Your task to perform on an android device: toggle data saver in the chrome app Image 0: 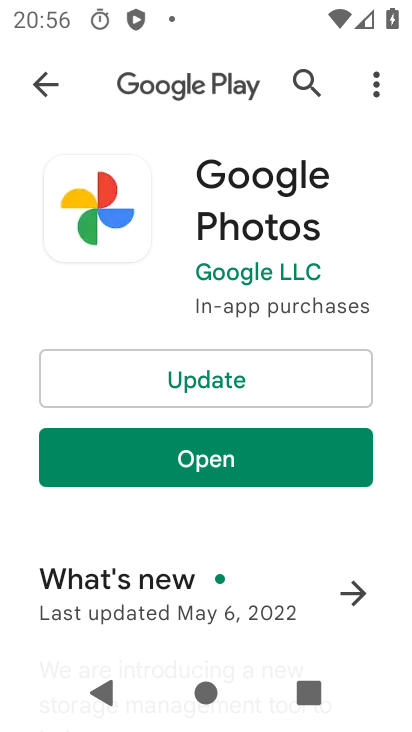
Step 0: drag from (362, 497) to (186, 76)
Your task to perform on an android device: toggle data saver in the chrome app Image 1: 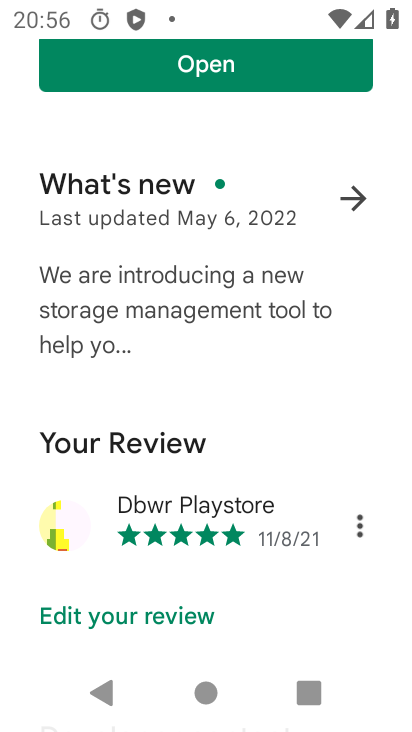
Step 1: press back button
Your task to perform on an android device: toggle data saver in the chrome app Image 2: 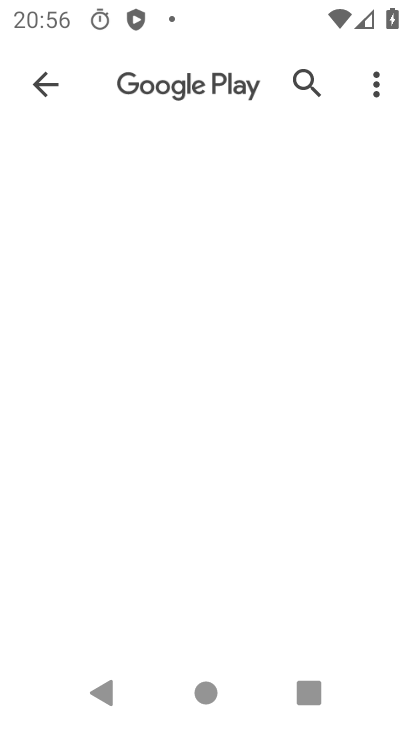
Step 2: press back button
Your task to perform on an android device: toggle data saver in the chrome app Image 3: 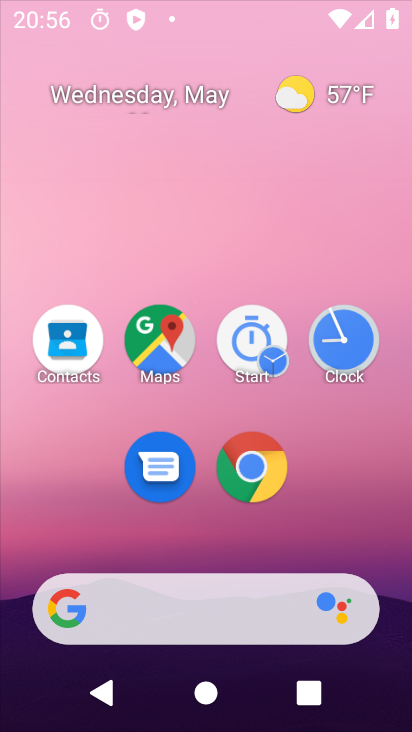
Step 3: press back button
Your task to perform on an android device: toggle data saver in the chrome app Image 4: 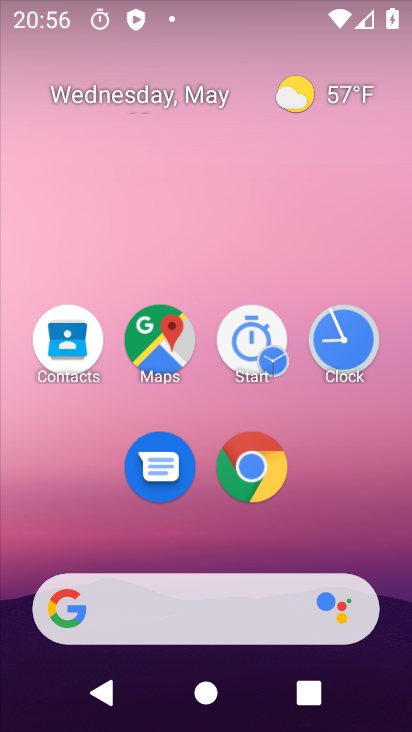
Step 4: drag from (354, 569) to (186, 126)
Your task to perform on an android device: toggle data saver in the chrome app Image 5: 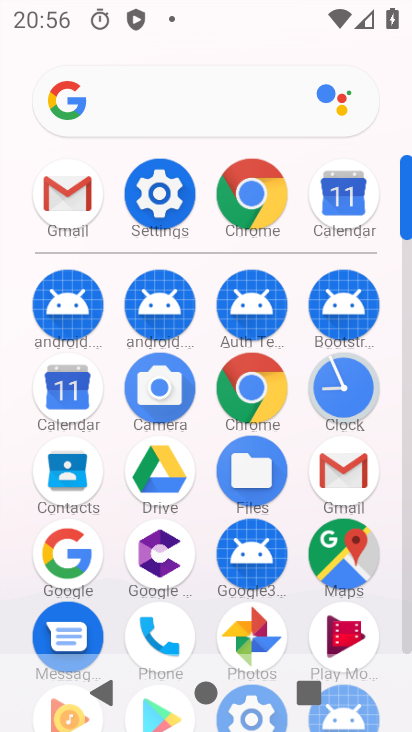
Step 5: click (229, 201)
Your task to perform on an android device: toggle data saver in the chrome app Image 6: 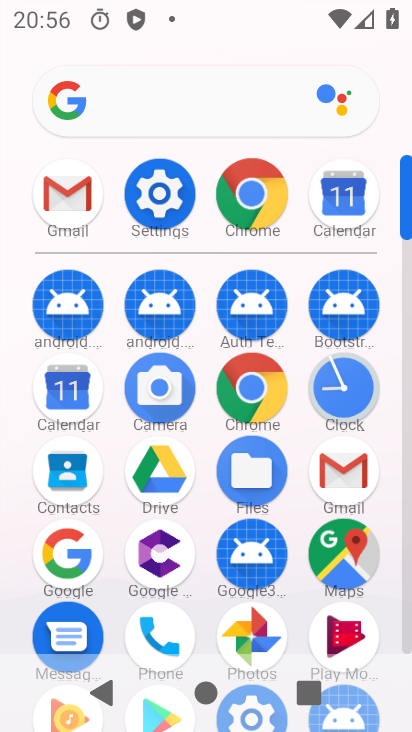
Step 6: click (231, 200)
Your task to perform on an android device: toggle data saver in the chrome app Image 7: 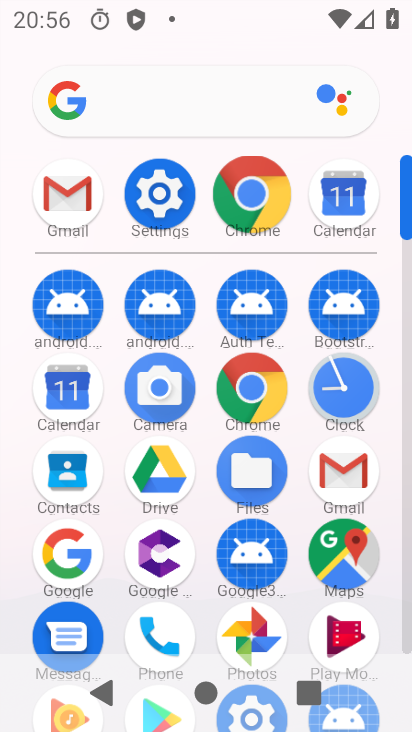
Step 7: click (233, 200)
Your task to perform on an android device: toggle data saver in the chrome app Image 8: 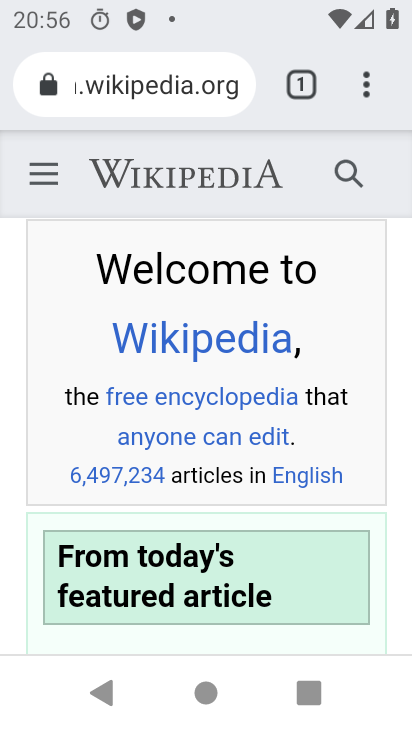
Step 8: drag from (362, 82) to (87, 510)
Your task to perform on an android device: toggle data saver in the chrome app Image 9: 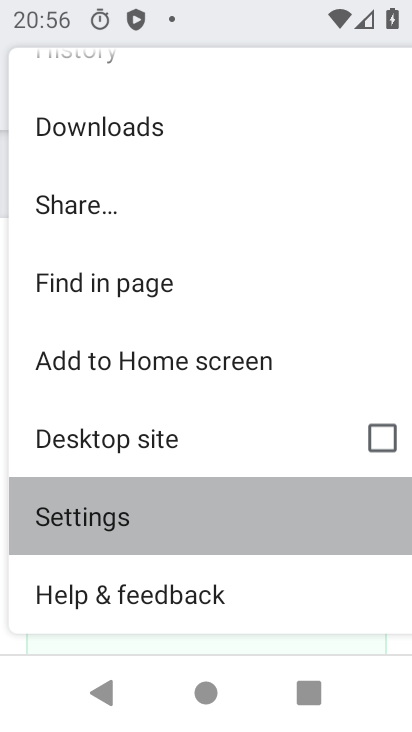
Step 9: click (86, 510)
Your task to perform on an android device: toggle data saver in the chrome app Image 10: 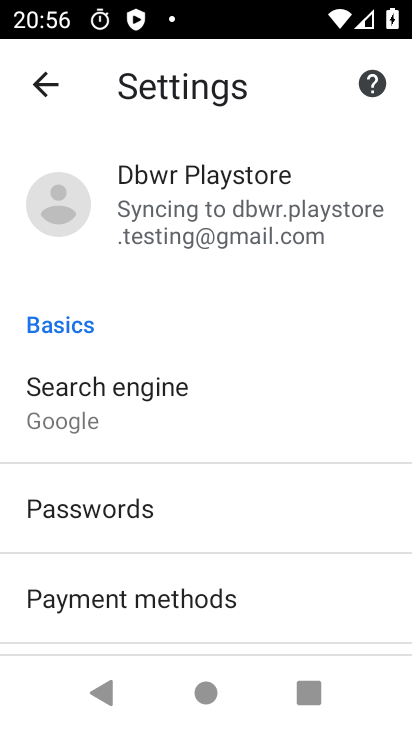
Step 10: drag from (179, 508) to (110, 121)
Your task to perform on an android device: toggle data saver in the chrome app Image 11: 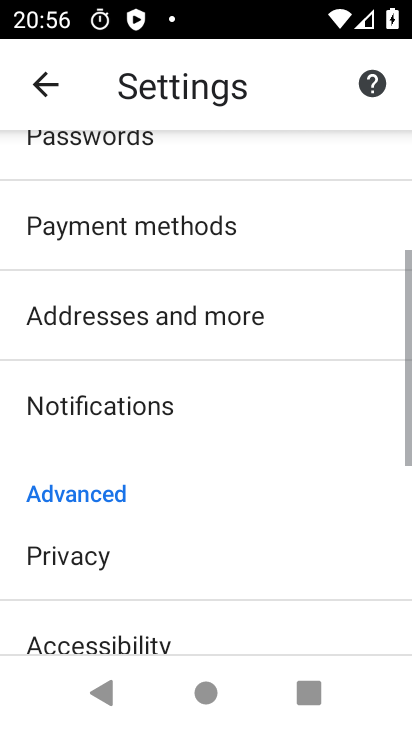
Step 11: drag from (209, 464) to (145, 98)
Your task to perform on an android device: toggle data saver in the chrome app Image 12: 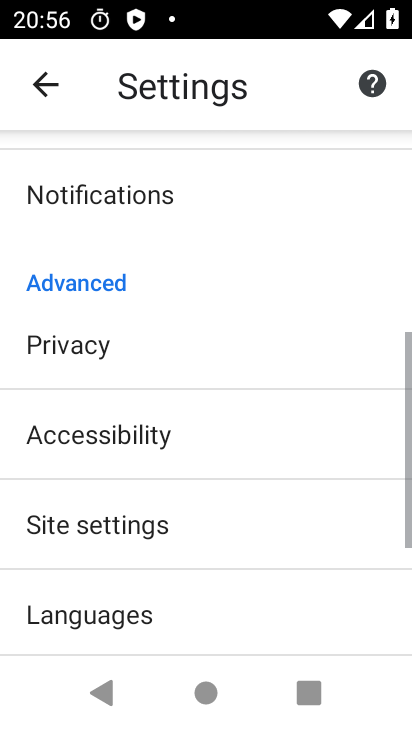
Step 12: drag from (185, 415) to (189, 92)
Your task to perform on an android device: toggle data saver in the chrome app Image 13: 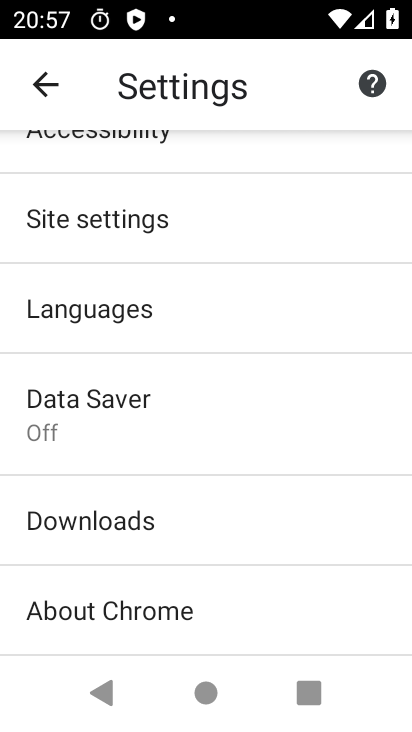
Step 13: click (68, 397)
Your task to perform on an android device: toggle data saver in the chrome app Image 14: 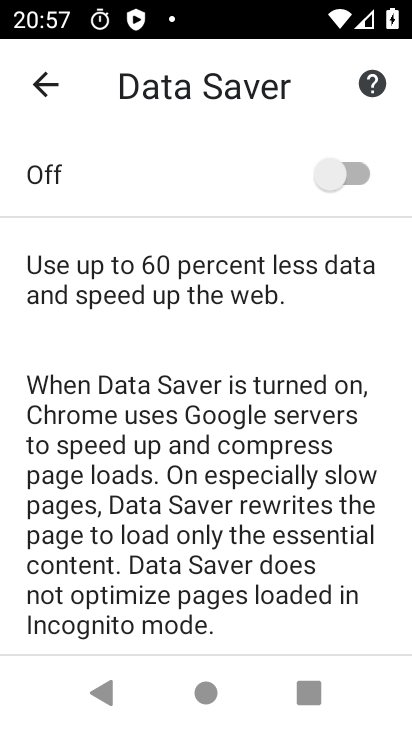
Step 14: click (328, 180)
Your task to perform on an android device: toggle data saver in the chrome app Image 15: 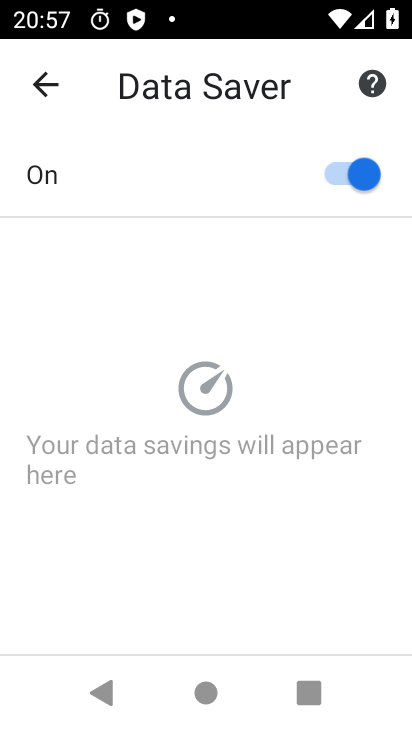
Step 15: task complete